Your task to perform on an android device: turn notification dots on Image 0: 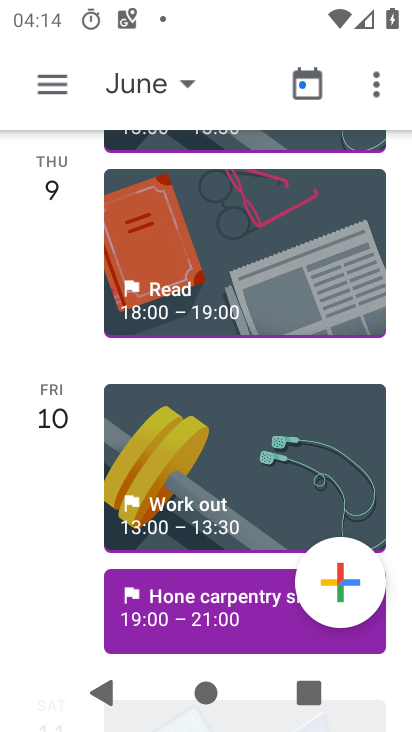
Step 0: task complete